Your task to perform on an android device: empty trash in google photos Image 0: 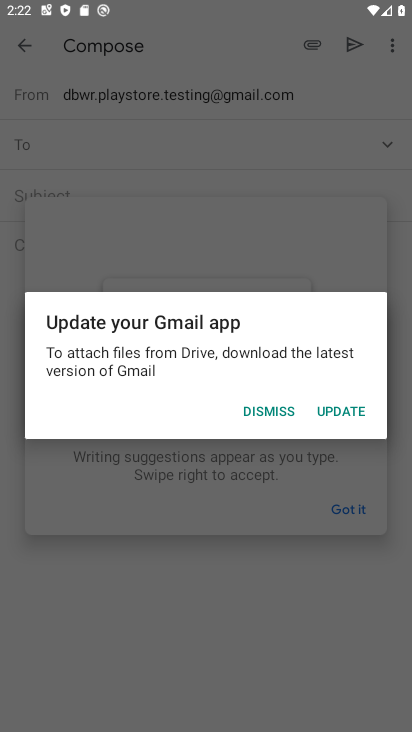
Step 0: press home button
Your task to perform on an android device: empty trash in google photos Image 1: 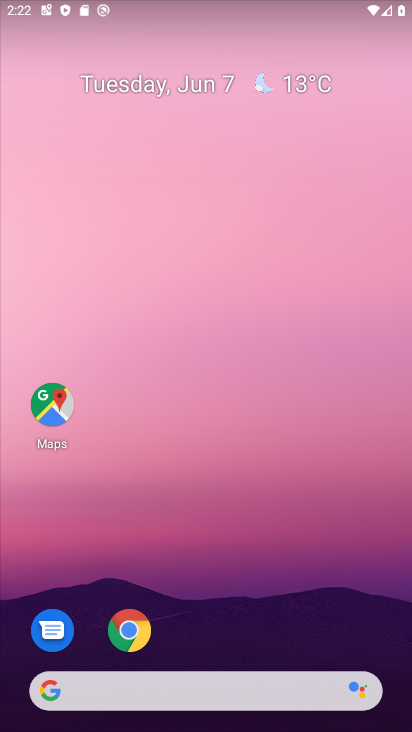
Step 1: drag from (225, 642) to (266, 125)
Your task to perform on an android device: empty trash in google photos Image 2: 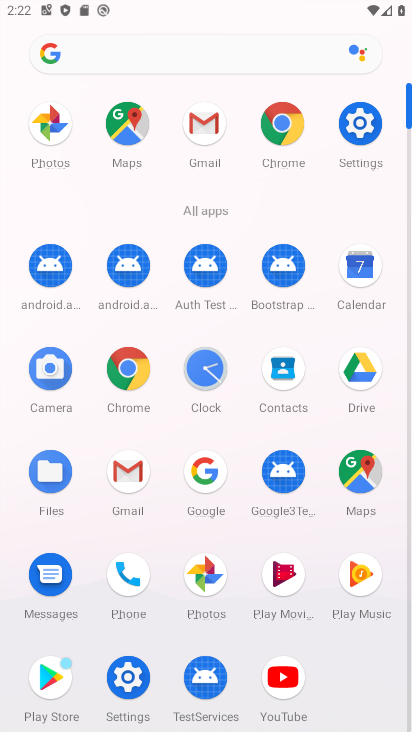
Step 2: click (197, 568)
Your task to perform on an android device: empty trash in google photos Image 3: 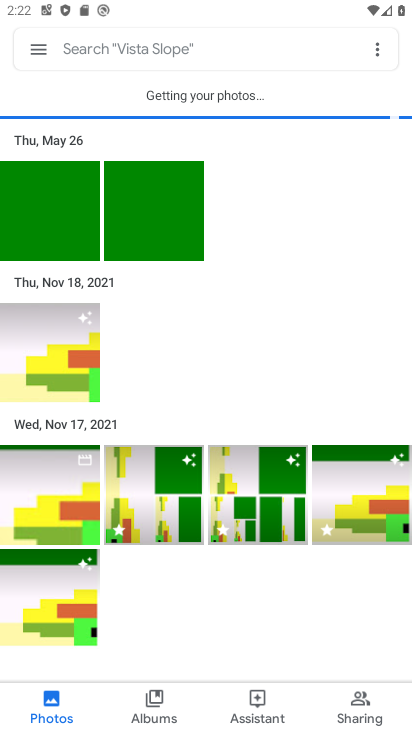
Step 3: click (40, 35)
Your task to perform on an android device: empty trash in google photos Image 4: 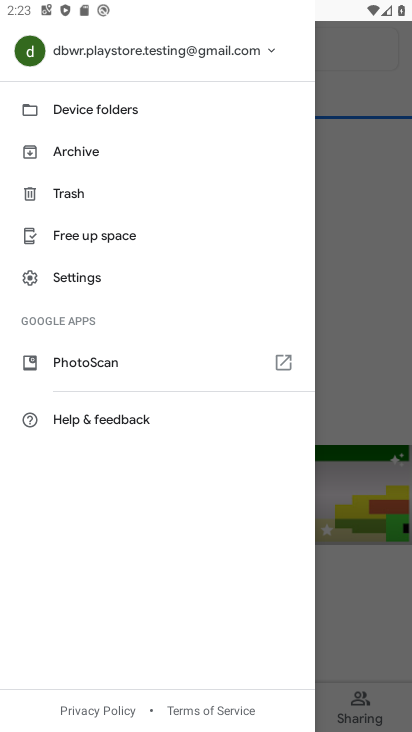
Step 4: click (78, 182)
Your task to perform on an android device: empty trash in google photos Image 5: 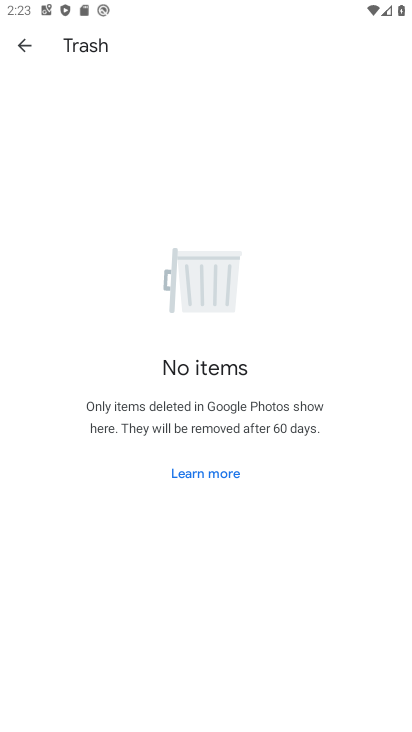
Step 5: task complete